Your task to perform on an android device: Open display settings Image 0: 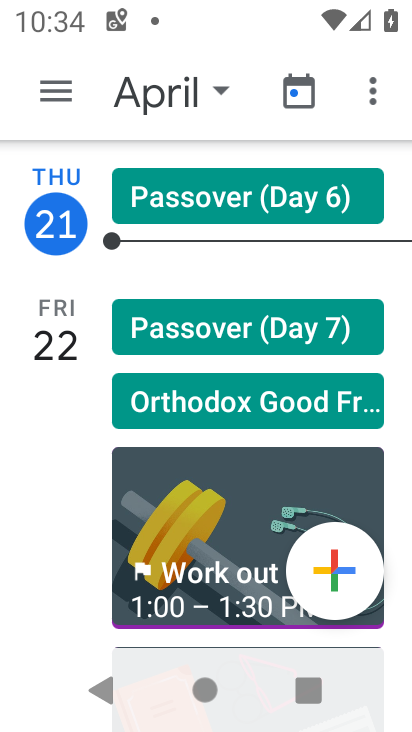
Step 0: press home button
Your task to perform on an android device: Open display settings Image 1: 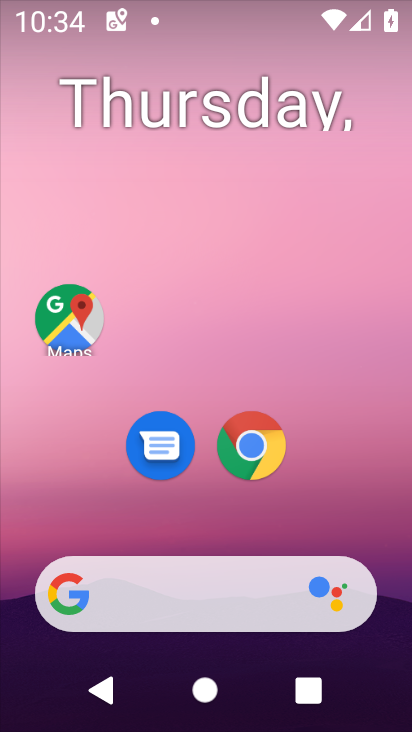
Step 1: drag from (396, 600) to (269, 81)
Your task to perform on an android device: Open display settings Image 2: 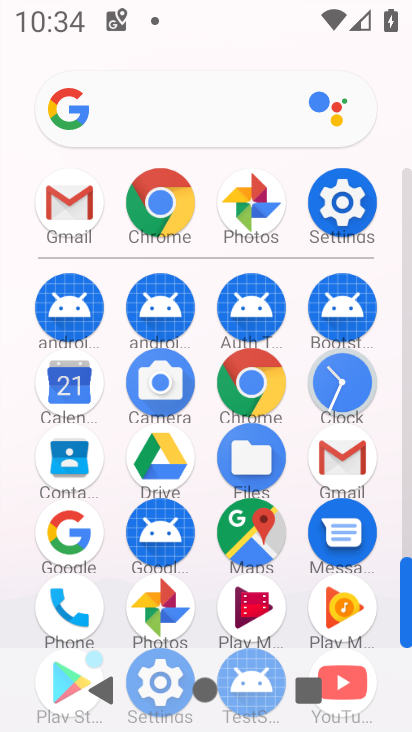
Step 2: click (344, 209)
Your task to perform on an android device: Open display settings Image 3: 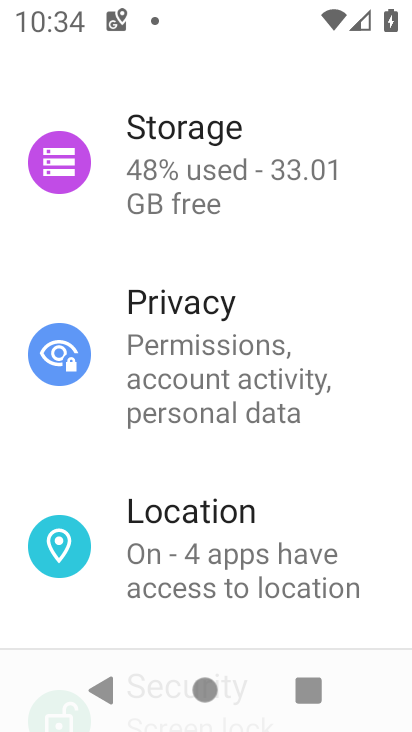
Step 3: drag from (222, 233) to (212, 567)
Your task to perform on an android device: Open display settings Image 4: 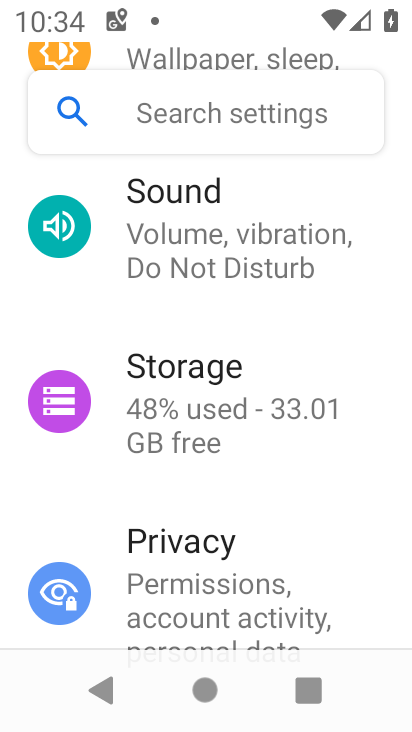
Step 4: drag from (183, 288) to (141, 567)
Your task to perform on an android device: Open display settings Image 5: 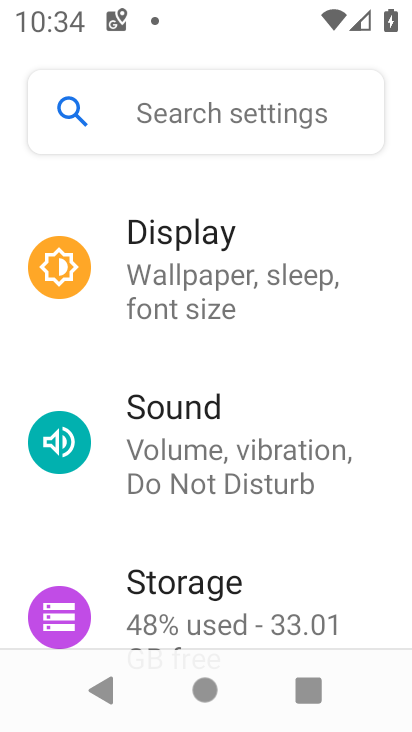
Step 5: click (175, 282)
Your task to perform on an android device: Open display settings Image 6: 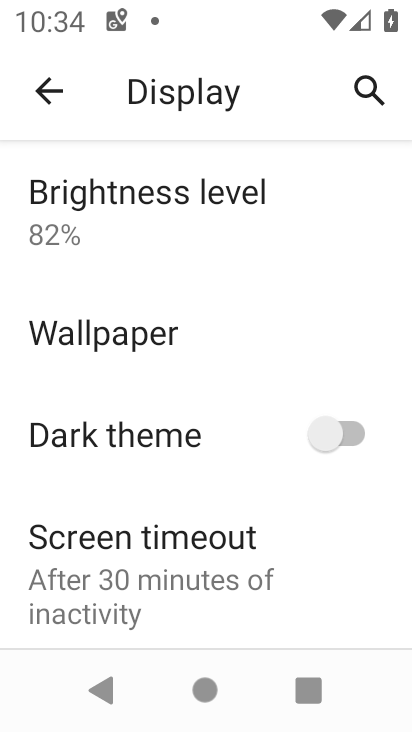
Step 6: task complete